Your task to perform on an android device: Go to wifi settings Image 0: 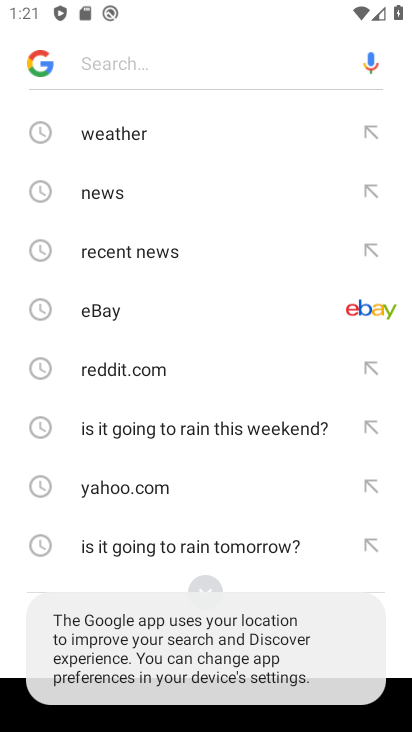
Step 0: press back button
Your task to perform on an android device: Go to wifi settings Image 1: 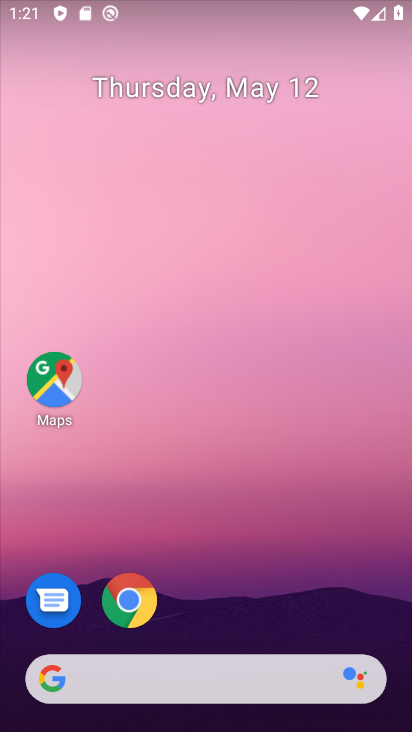
Step 1: drag from (156, 639) to (299, 301)
Your task to perform on an android device: Go to wifi settings Image 2: 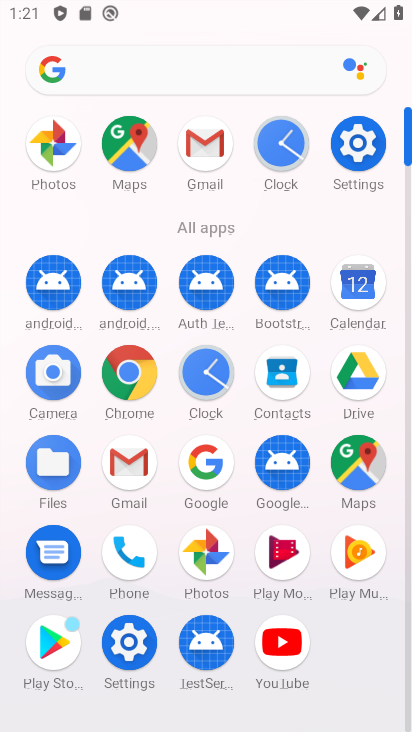
Step 2: click (123, 633)
Your task to perform on an android device: Go to wifi settings Image 3: 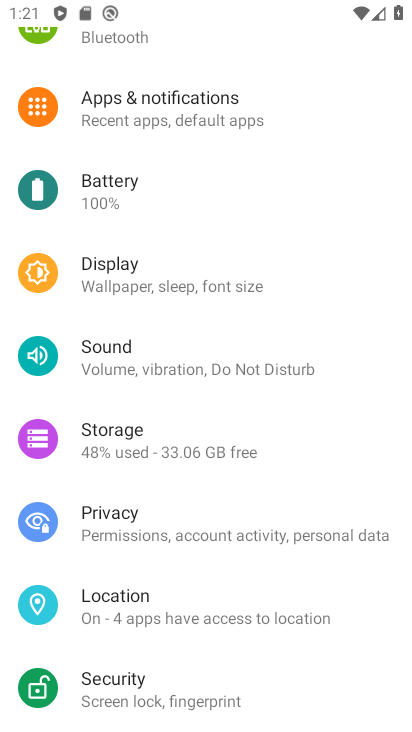
Step 3: drag from (214, 161) to (232, 526)
Your task to perform on an android device: Go to wifi settings Image 4: 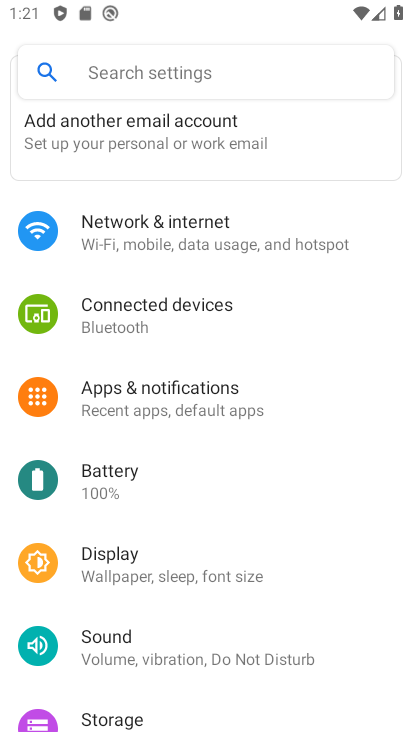
Step 4: click (236, 237)
Your task to perform on an android device: Go to wifi settings Image 5: 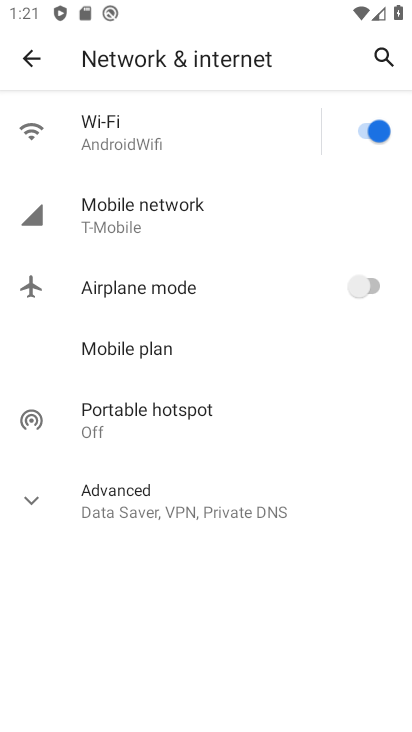
Step 5: click (126, 155)
Your task to perform on an android device: Go to wifi settings Image 6: 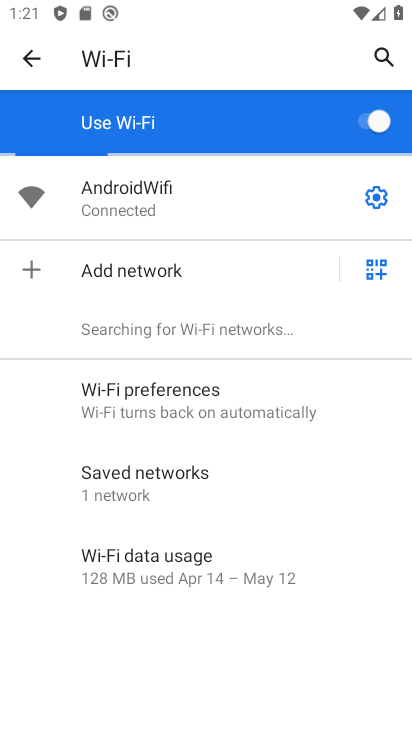
Step 6: task complete